Your task to perform on an android device: Open Google Chrome Image 0: 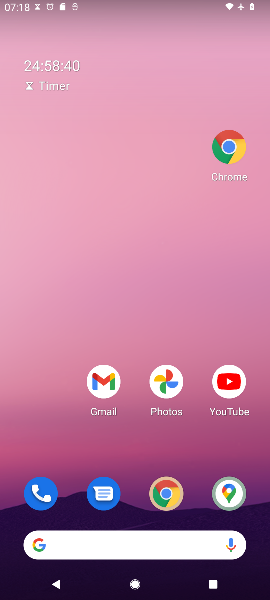
Step 0: click (163, 503)
Your task to perform on an android device: Open Google Chrome Image 1: 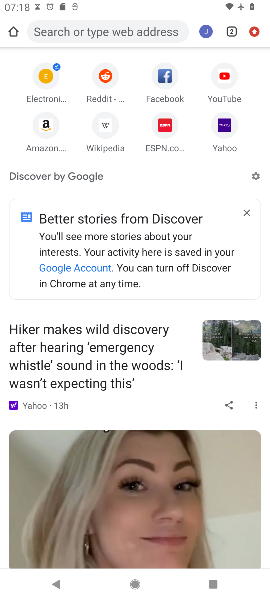
Step 1: task complete